Your task to perform on an android device: turn pop-ups off in chrome Image 0: 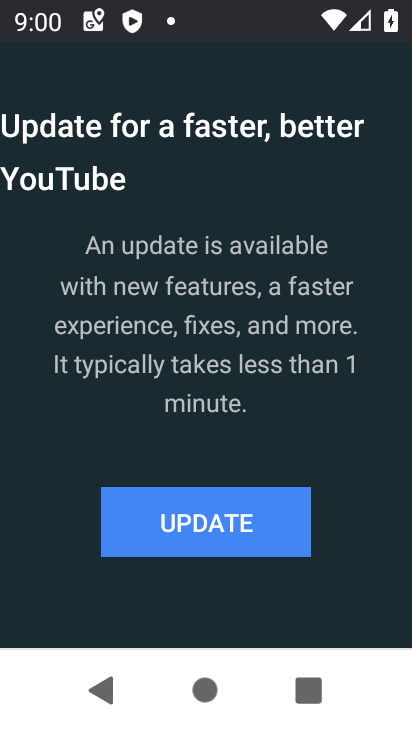
Step 0: press home button
Your task to perform on an android device: turn pop-ups off in chrome Image 1: 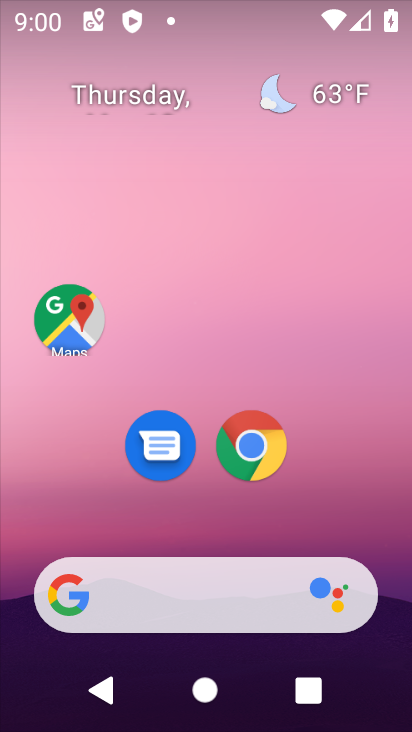
Step 1: click (276, 458)
Your task to perform on an android device: turn pop-ups off in chrome Image 2: 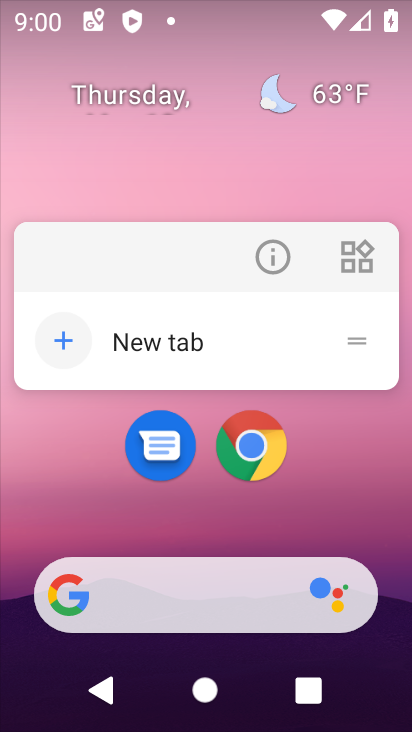
Step 2: click (260, 450)
Your task to perform on an android device: turn pop-ups off in chrome Image 3: 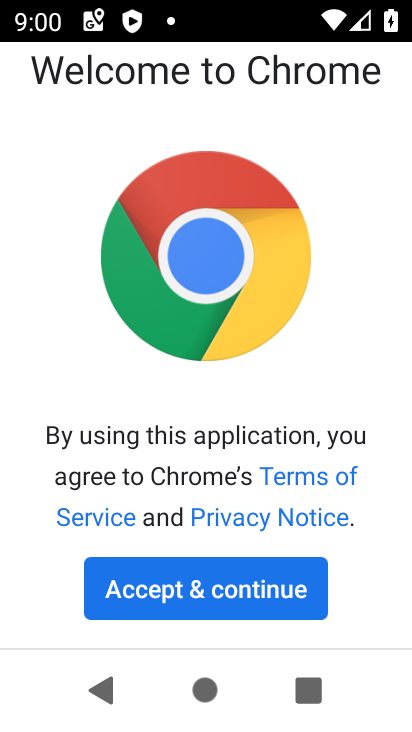
Step 3: click (244, 606)
Your task to perform on an android device: turn pop-ups off in chrome Image 4: 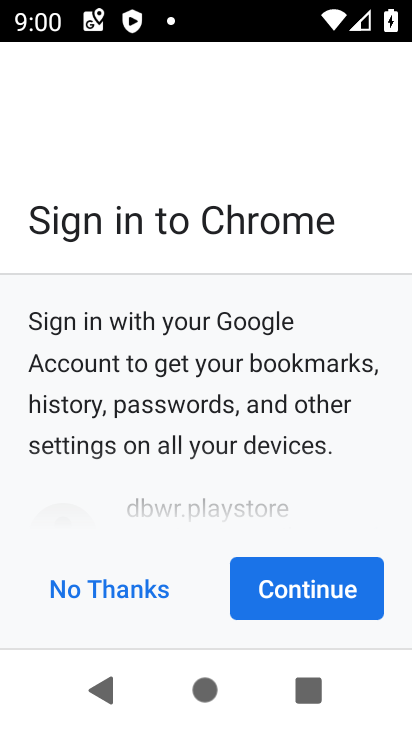
Step 4: click (281, 583)
Your task to perform on an android device: turn pop-ups off in chrome Image 5: 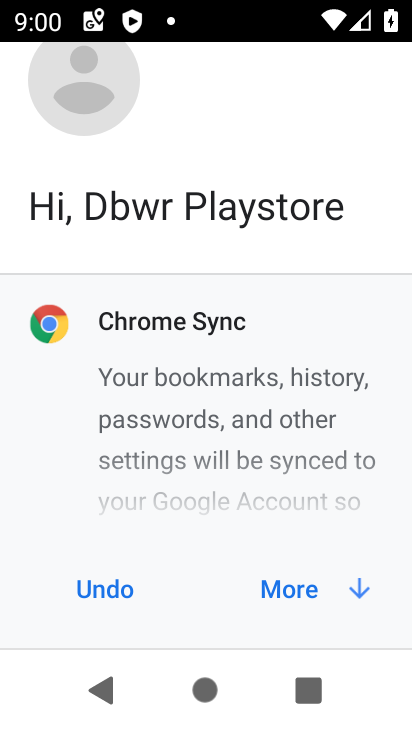
Step 5: click (281, 583)
Your task to perform on an android device: turn pop-ups off in chrome Image 6: 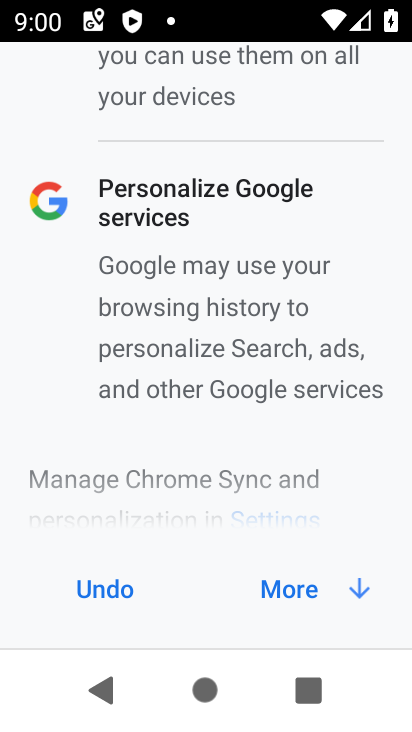
Step 6: click (298, 594)
Your task to perform on an android device: turn pop-ups off in chrome Image 7: 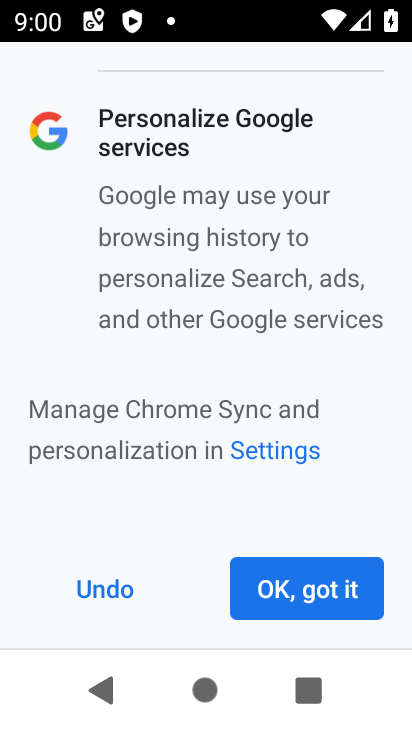
Step 7: click (298, 594)
Your task to perform on an android device: turn pop-ups off in chrome Image 8: 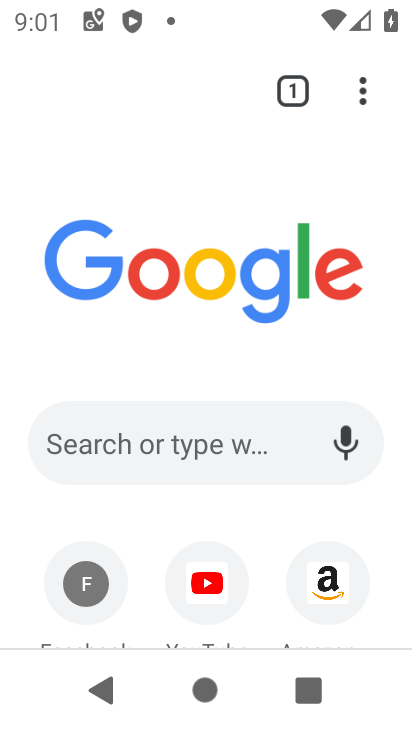
Step 8: click (363, 87)
Your task to perform on an android device: turn pop-ups off in chrome Image 9: 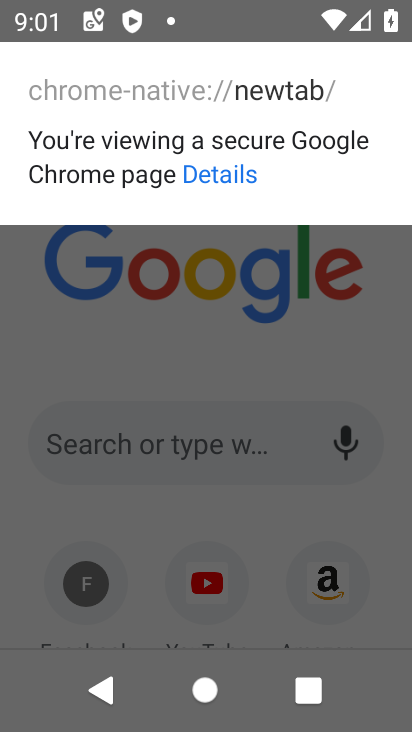
Step 9: click (298, 313)
Your task to perform on an android device: turn pop-ups off in chrome Image 10: 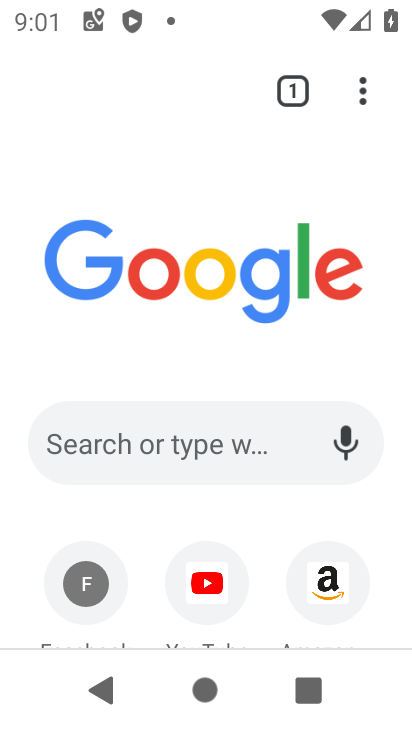
Step 10: click (339, 384)
Your task to perform on an android device: turn pop-ups off in chrome Image 11: 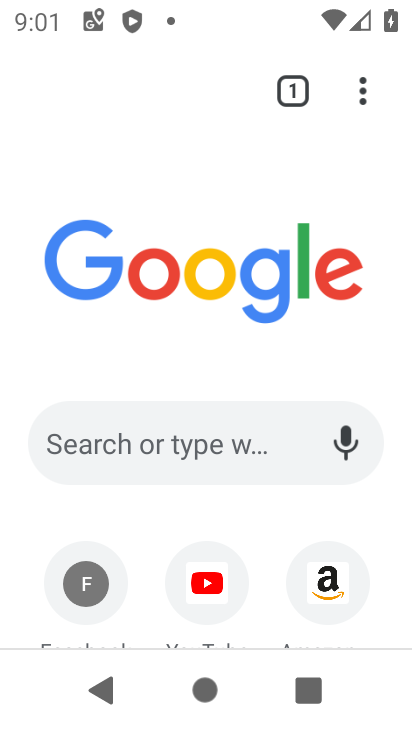
Step 11: click (365, 99)
Your task to perform on an android device: turn pop-ups off in chrome Image 12: 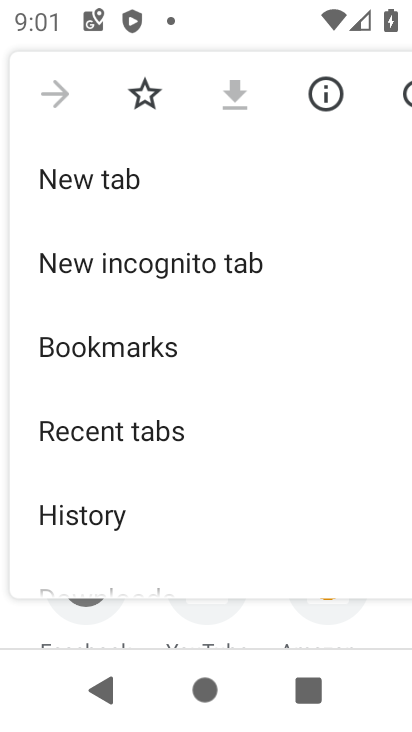
Step 12: drag from (143, 530) to (179, 102)
Your task to perform on an android device: turn pop-ups off in chrome Image 13: 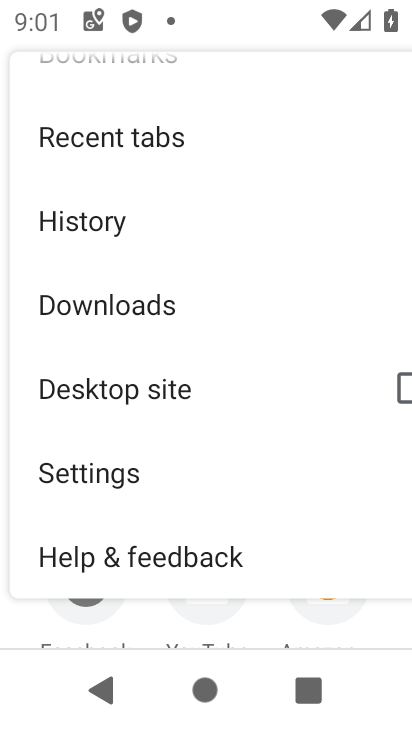
Step 13: click (111, 480)
Your task to perform on an android device: turn pop-ups off in chrome Image 14: 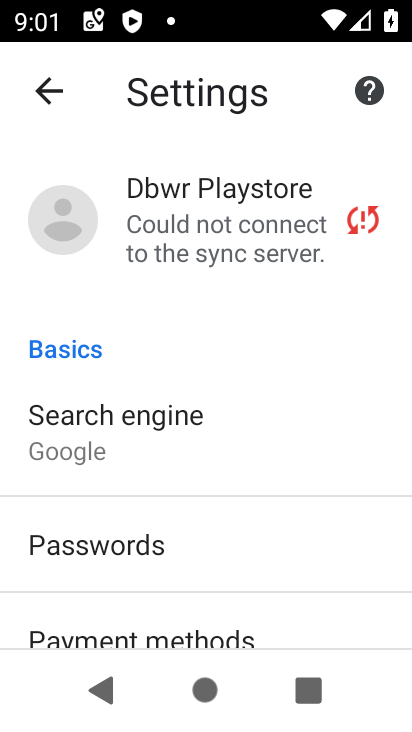
Step 14: drag from (175, 542) to (222, 227)
Your task to perform on an android device: turn pop-ups off in chrome Image 15: 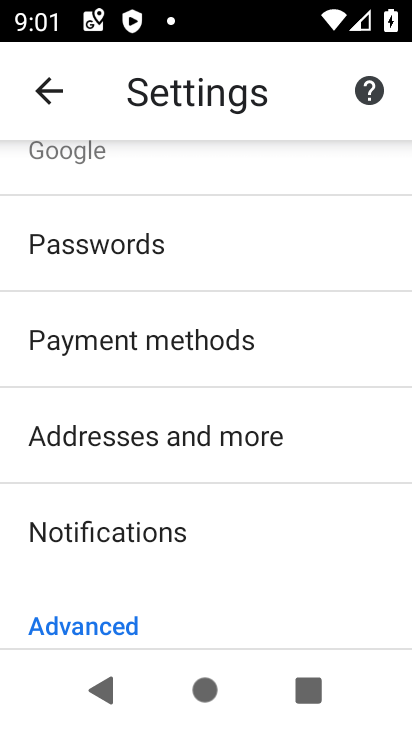
Step 15: drag from (155, 545) to (195, 332)
Your task to perform on an android device: turn pop-ups off in chrome Image 16: 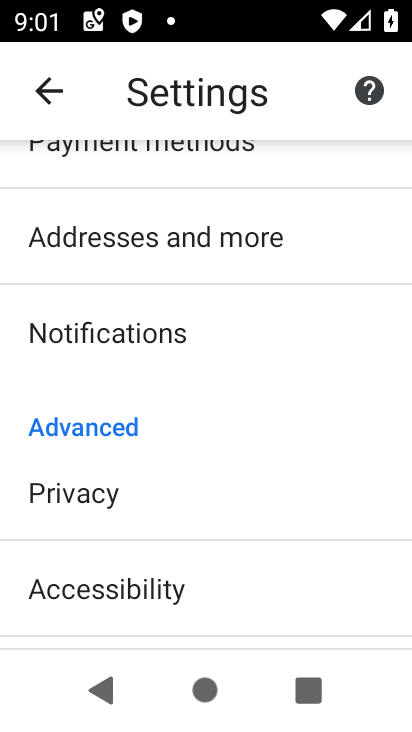
Step 16: drag from (132, 587) to (177, 287)
Your task to perform on an android device: turn pop-ups off in chrome Image 17: 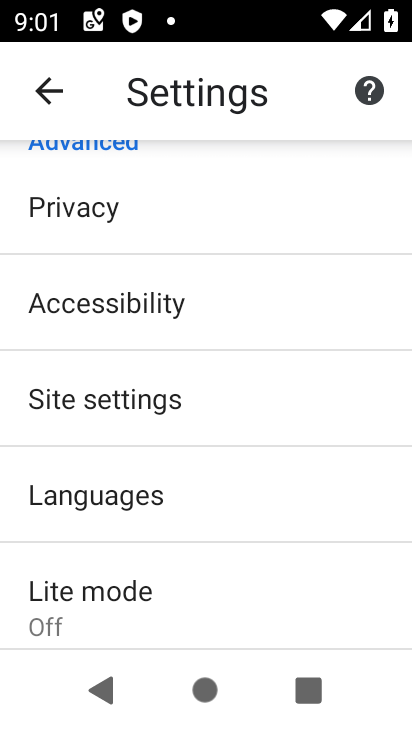
Step 17: click (138, 414)
Your task to perform on an android device: turn pop-ups off in chrome Image 18: 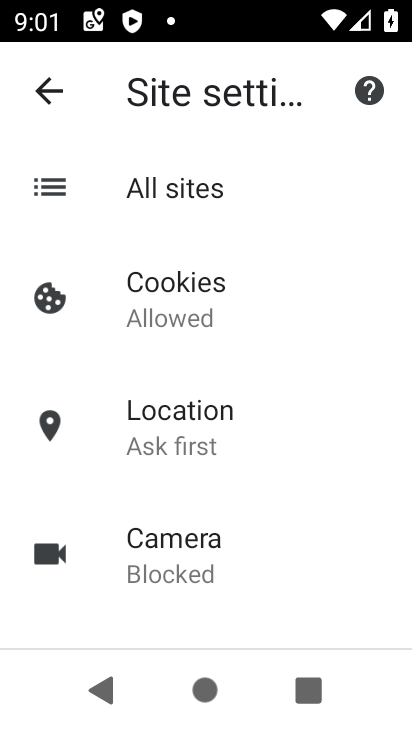
Step 18: drag from (190, 447) to (200, 318)
Your task to perform on an android device: turn pop-ups off in chrome Image 19: 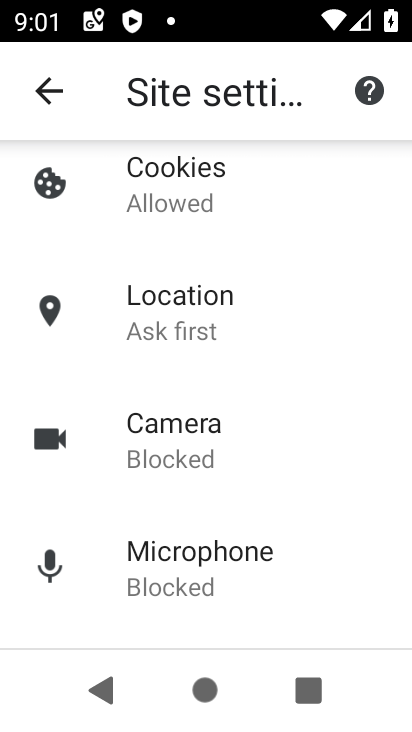
Step 19: drag from (179, 563) to (210, 300)
Your task to perform on an android device: turn pop-ups off in chrome Image 20: 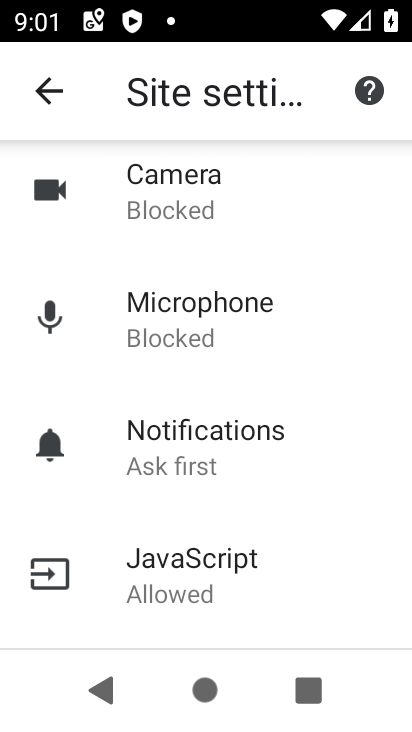
Step 20: drag from (169, 568) to (207, 332)
Your task to perform on an android device: turn pop-ups off in chrome Image 21: 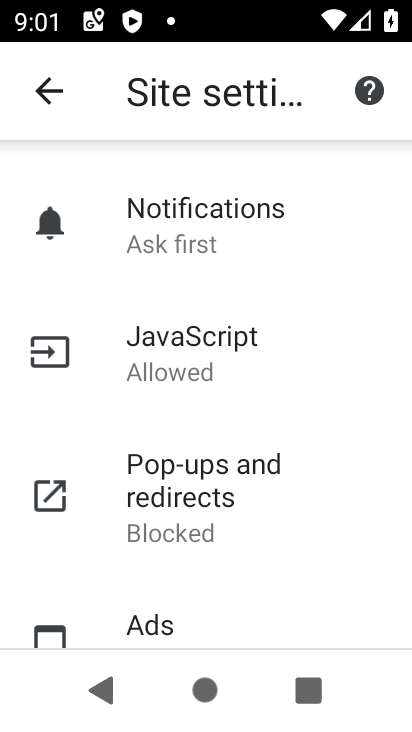
Step 21: click (188, 515)
Your task to perform on an android device: turn pop-ups off in chrome Image 22: 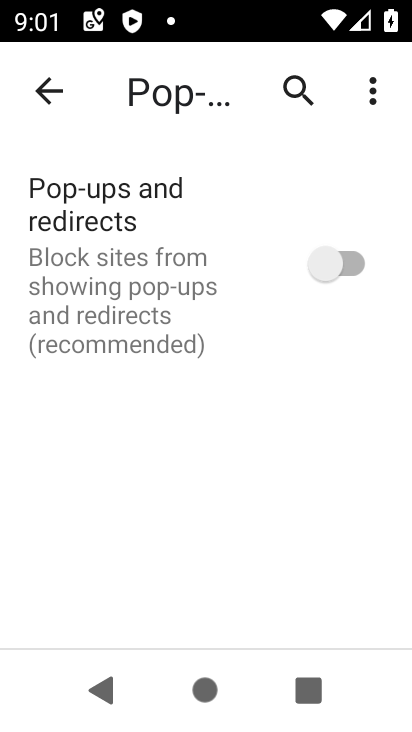
Step 22: task complete